Your task to perform on an android device: Open Amazon Image 0: 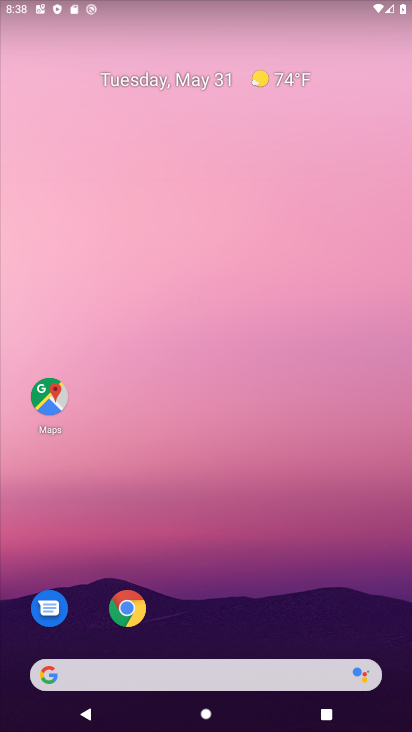
Step 0: click (136, 622)
Your task to perform on an android device: Open Amazon Image 1: 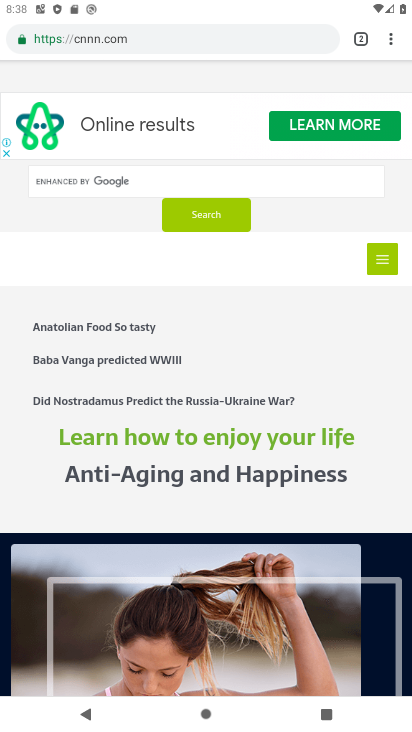
Step 1: click (353, 31)
Your task to perform on an android device: Open Amazon Image 2: 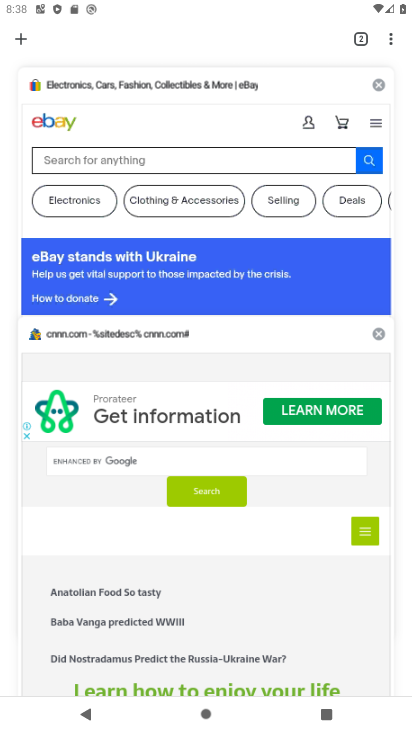
Step 2: click (14, 36)
Your task to perform on an android device: Open Amazon Image 3: 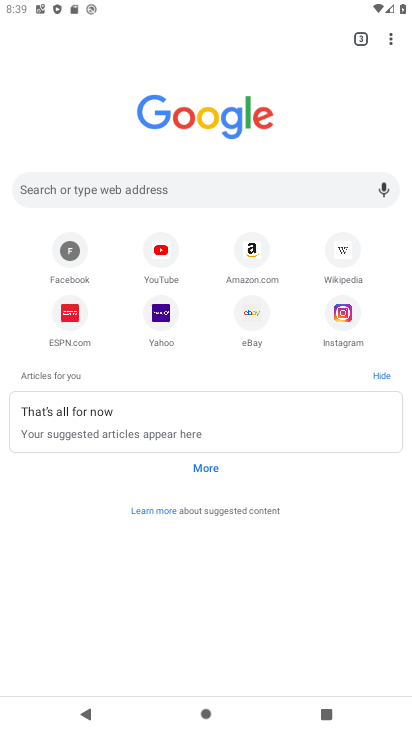
Step 3: click (261, 259)
Your task to perform on an android device: Open Amazon Image 4: 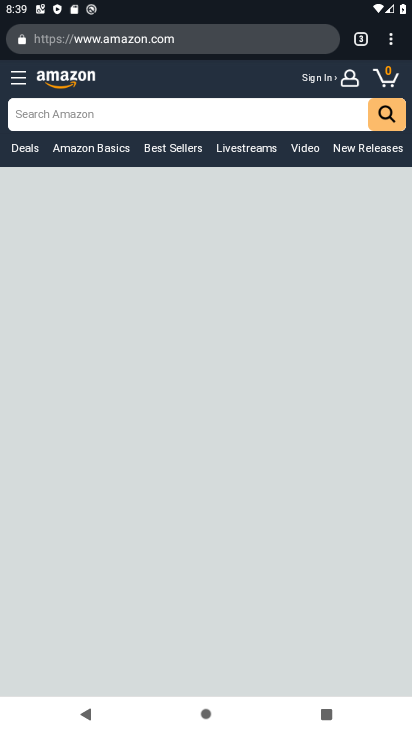
Step 4: task complete